Your task to perform on an android device: turn pop-ups off in chrome Image 0: 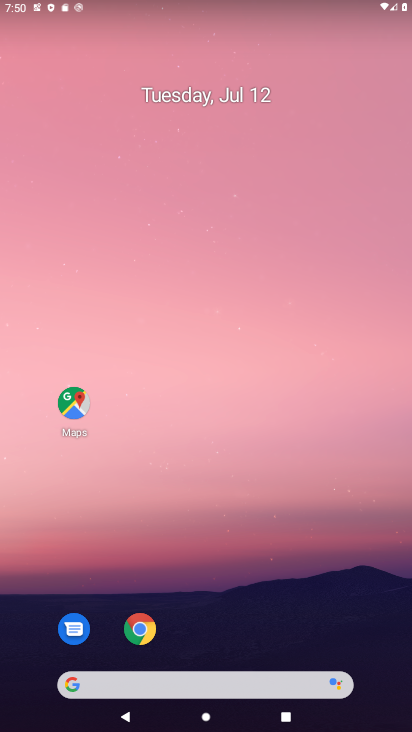
Step 0: drag from (336, 697) to (291, 133)
Your task to perform on an android device: turn pop-ups off in chrome Image 1: 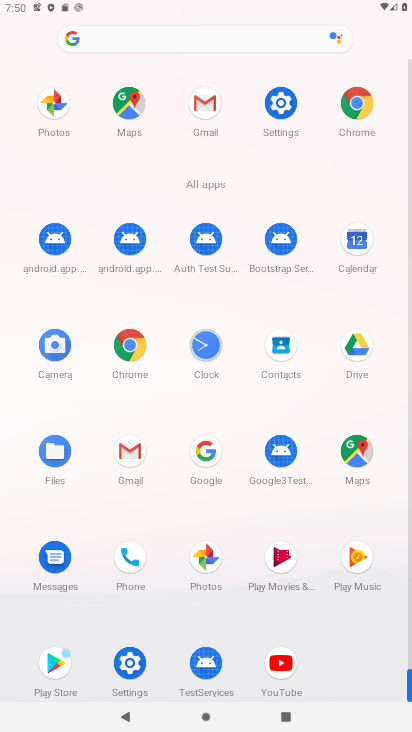
Step 1: click (359, 100)
Your task to perform on an android device: turn pop-ups off in chrome Image 2: 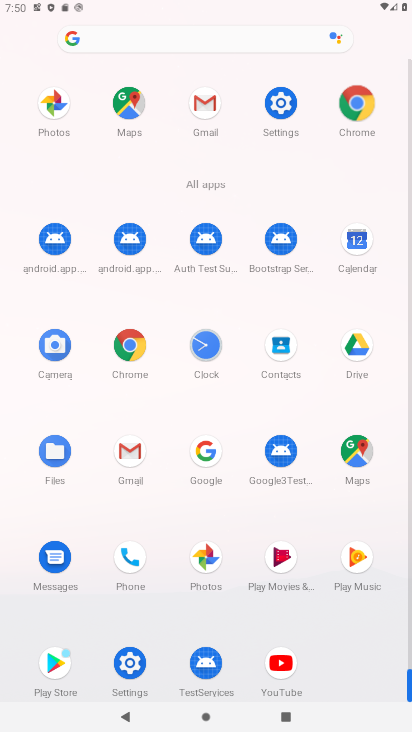
Step 2: click (359, 100)
Your task to perform on an android device: turn pop-ups off in chrome Image 3: 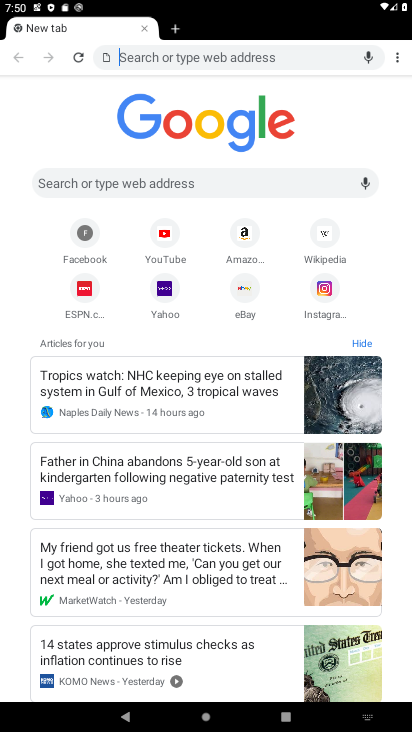
Step 3: click (393, 56)
Your task to perform on an android device: turn pop-ups off in chrome Image 4: 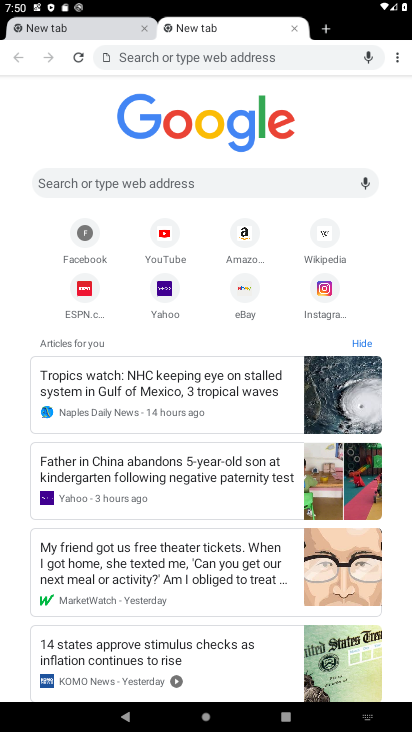
Step 4: drag from (397, 53) to (268, 269)
Your task to perform on an android device: turn pop-ups off in chrome Image 5: 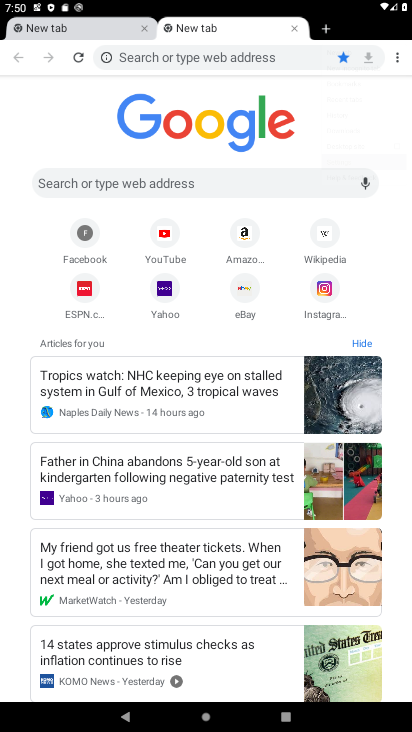
Step 5: click (268, 269)
Your task to perform on an android device: turn pop-ups off in chrome Image 6: 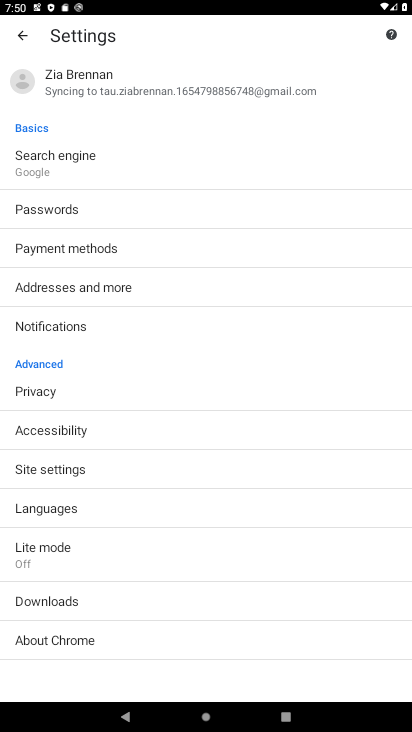
Step 6: click (48, 449)
Your task to perform on an android device: turn pop-ups off in chrome Image 7: 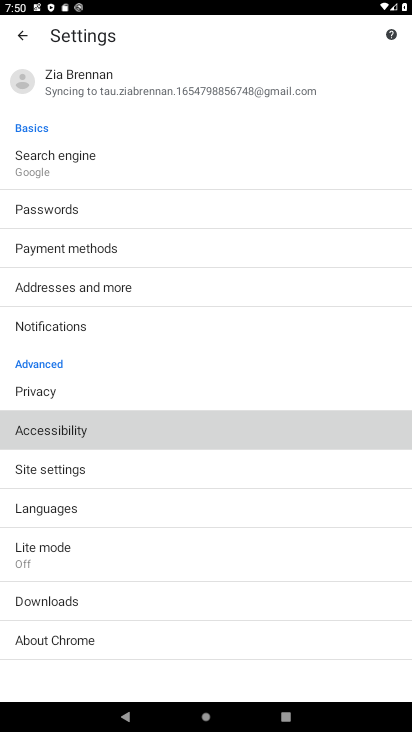
Step 7: click (45, 453)
Your task to perform on an android device: turn pop-ups off in chrome Image 8: 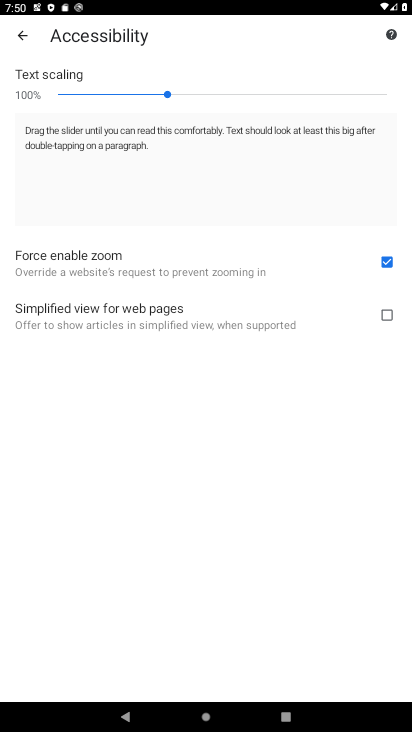
Step 8: click (16, 30)
Your task to perform on an android device: turn pop-ups off in chrome Image 9: 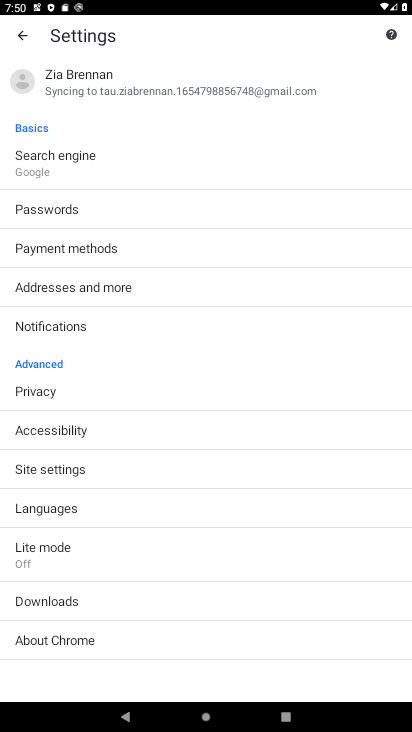
Step 9: click (37, 460)
Your task to perform on an android device: turn pop-ups off in chrome Image 10: 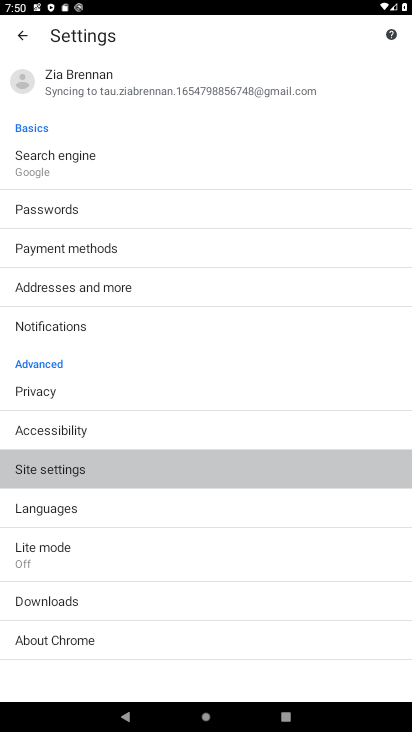
Step 10: click (37, 460)
Your task to perform on an android device: turn pop-ups off in chrome Image 11: 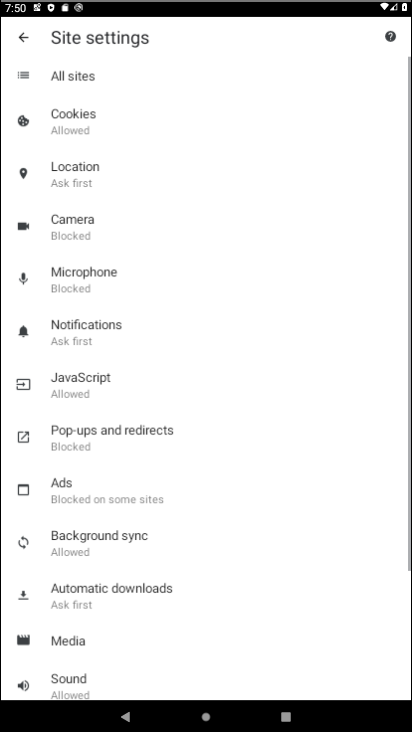
Step 11: click (37, 460)
Your task to perform on an android device: turn pop-ups off in chrome Image 12: 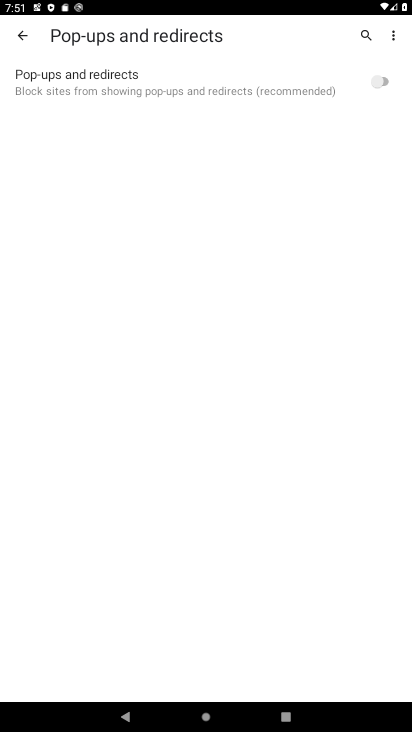
Step 12: task complete